Your task to perform on an android device: visit the assistant section in the google photos Image 0: 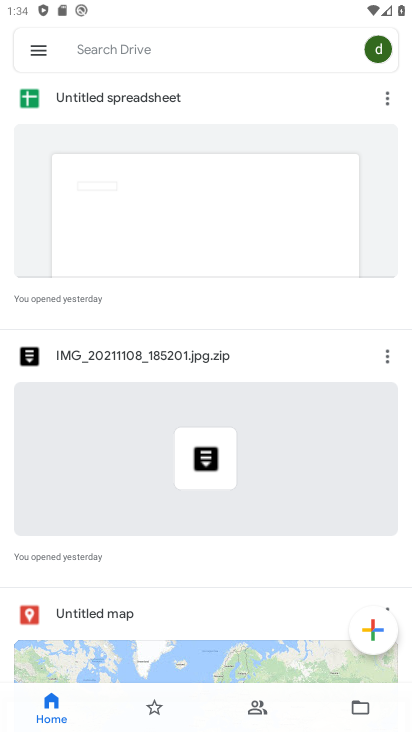
Step 0: press back button
Your task to perform on an android device: visit the assistant section in the google photos Image 1: 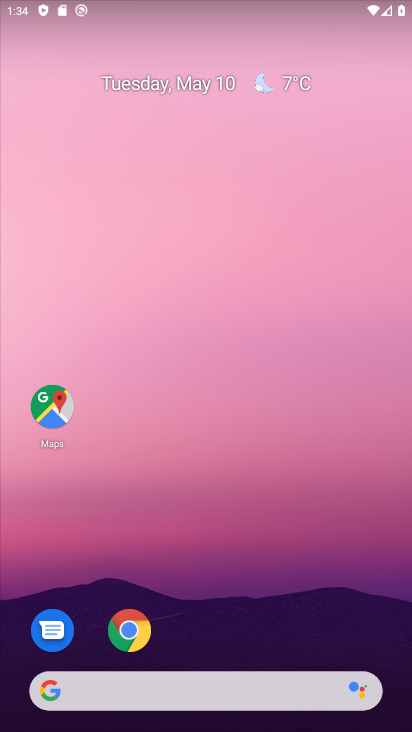
Step 1: drag from (255, 580) to (187, 45)
Your task to perform on an android device: visit the assistant section in the google photos Image 2: 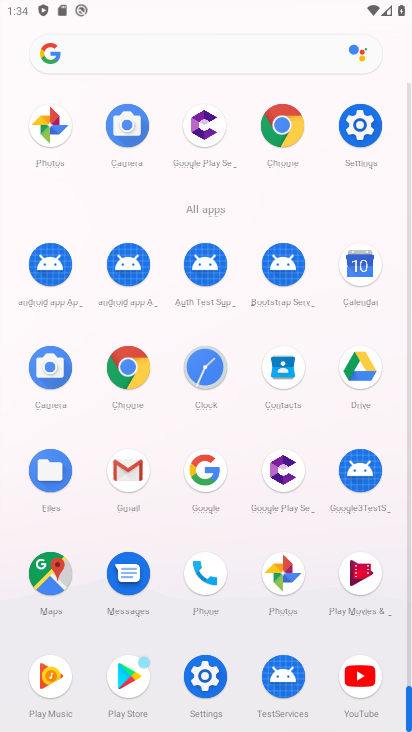
Step 2: click (48, 119)
Your task to perform on an android device: visit the assistant section in the google photos Image 3: 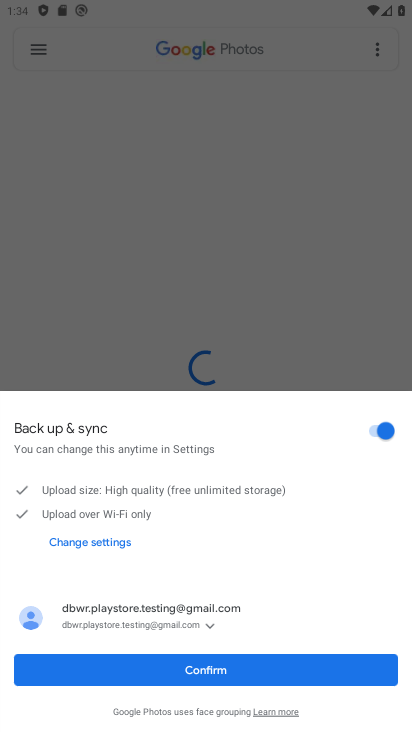
Step 3: click (192, 672)
Your task to perform on an android device: visit the assistant section in the google photos Image 4: 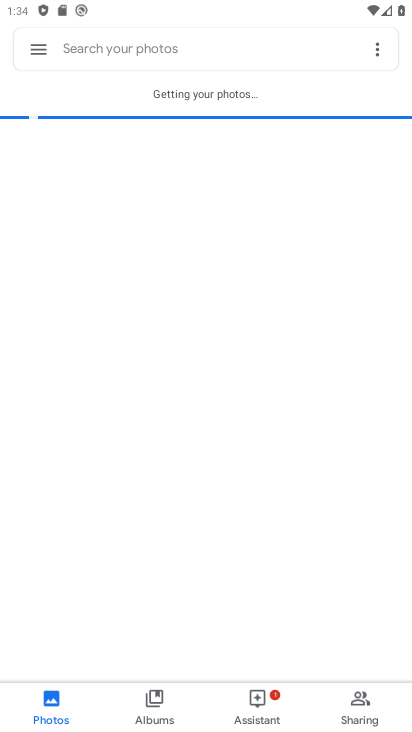
Step 4: click (246, 704)
Your task to perform on an android device: visit the assistant section in the google photos Image 5: 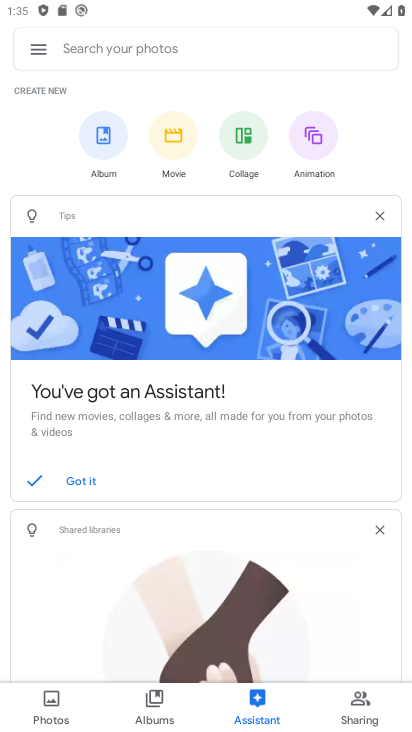
Step 5: task complete